Your task to perform on an android device: toggle location history Image 0: 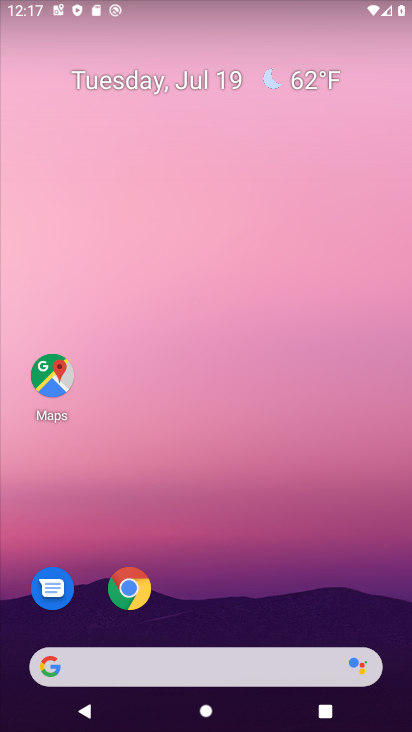
Step 0: drag from (313, 554) to (313, 10)
Your task to perform on an android device: toggle location history Image 1: 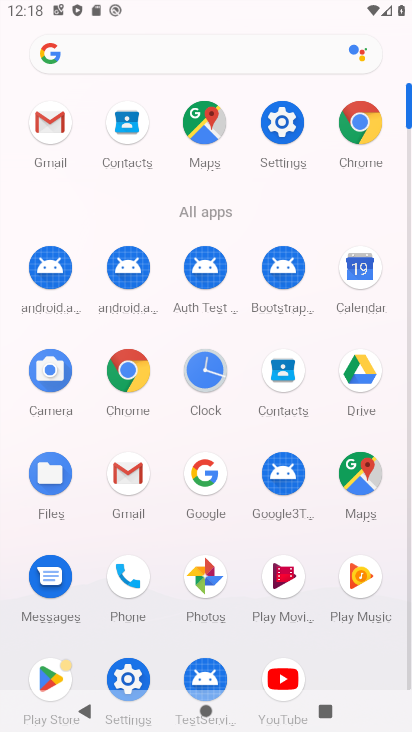
Step 1: click (279, 117)
Your task to perform on an android device: toggle location history Image 2: 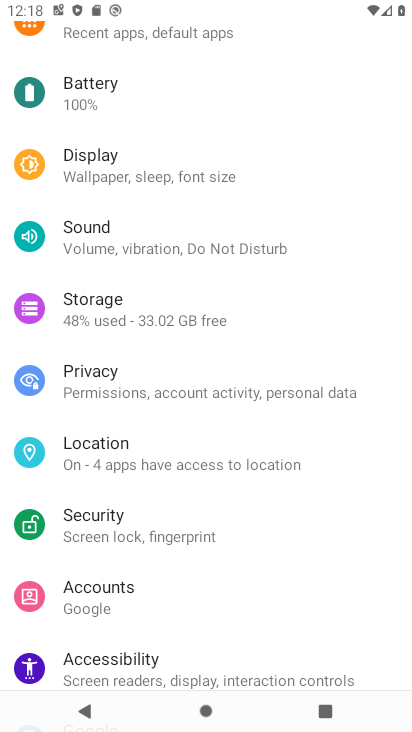
Step 2: click (116, 446)
Your task to perform on an android device: toggle location history Image 3: 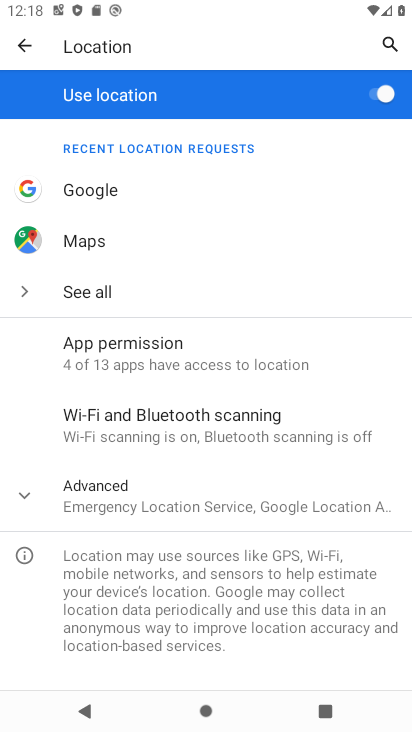
Step 3: click (163, 499)
Your task to perform on an android device: toggle location history Image 4: 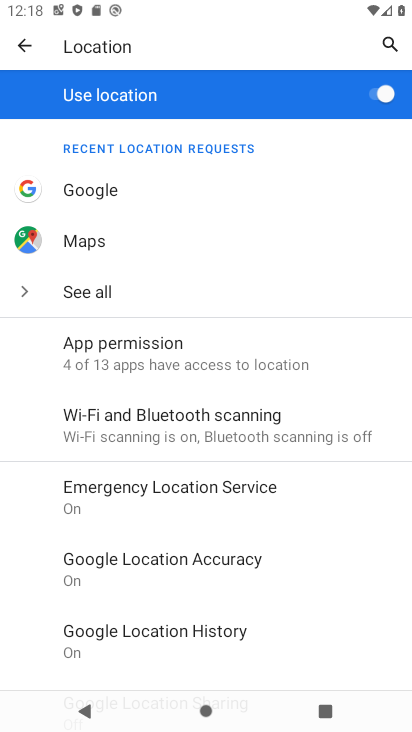
Step 4: click (154, 630)
Your task to perform on an android device: toggle location history Image 5: 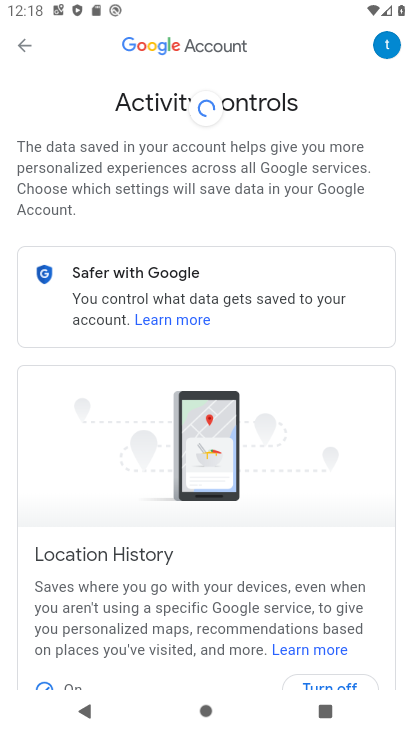
Step 5: drag from (339, 550) to (323, 156)
Your task to perform on an android device: toggle location history Image 6: 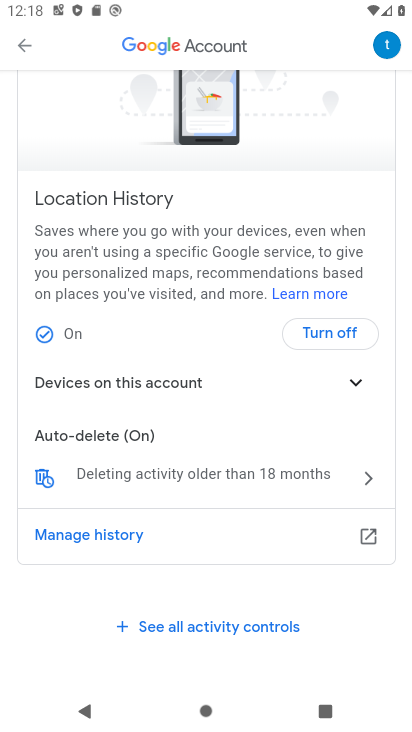
Step 6: click (321, 333)
Your task to perform on an android device: toggle location history Image 7: 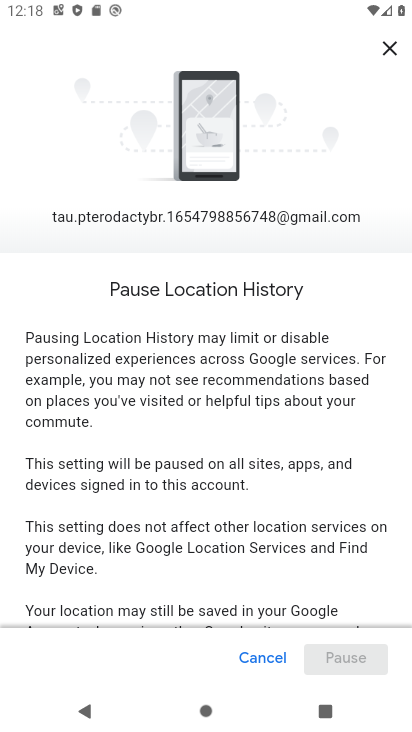
Step 7: drag from (329, 576) to (307, 172)
Your task to perform on an android device: toggle location history Image 8: 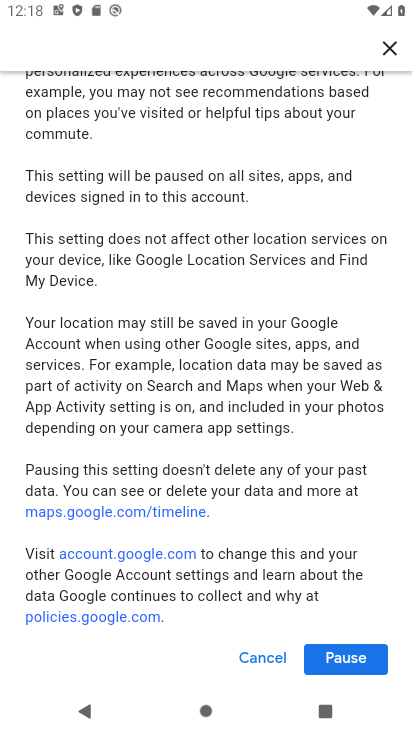
Step 8: click (334, 666)
Your task to perform on an android device: toggle location history Image 9: 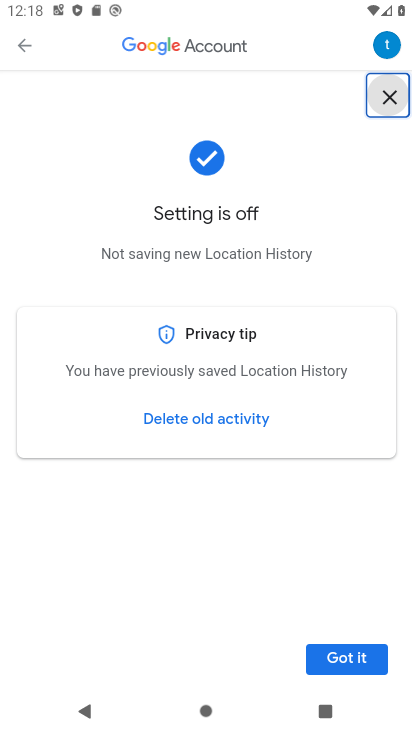
Step 9: click (343, 659)
Your task to perform on an android device: toggle location history Image 10: 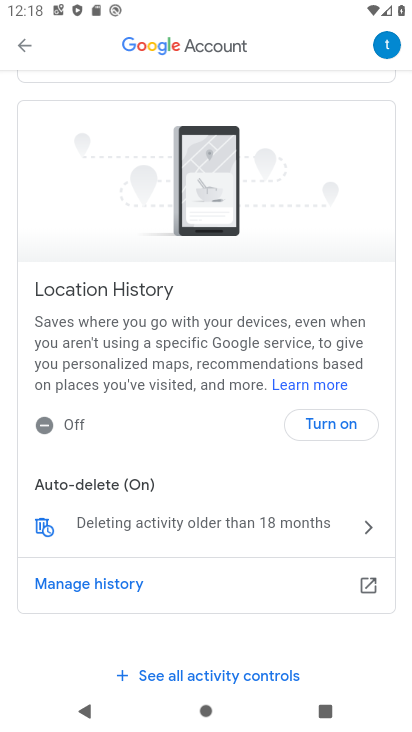
Step 10: task complete